Your task to perform on an android device: Open eBay Image 0: 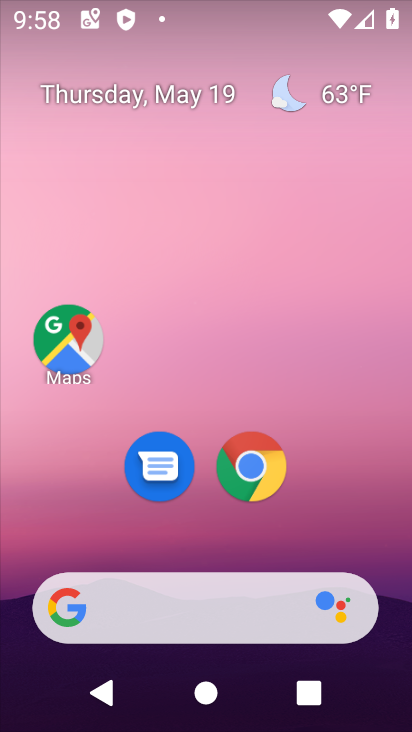
Step 0: drag from (380, 612) to (256, 37)
Your task to perform on an android device: Open eBay Image 1: 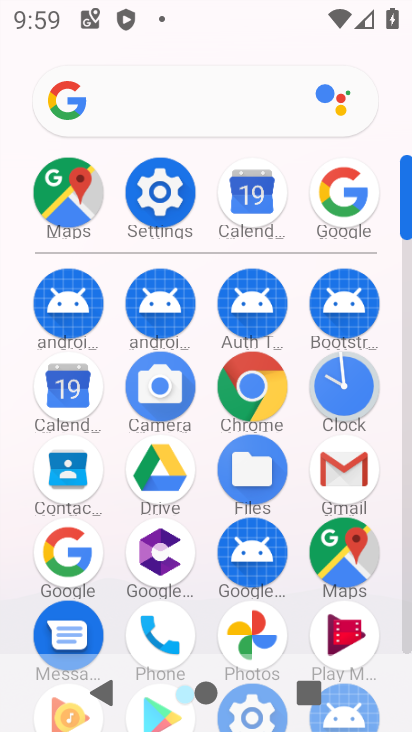
Step 1: click (87, 566)
Your task to perform on an android device: Open eBay Image 2: 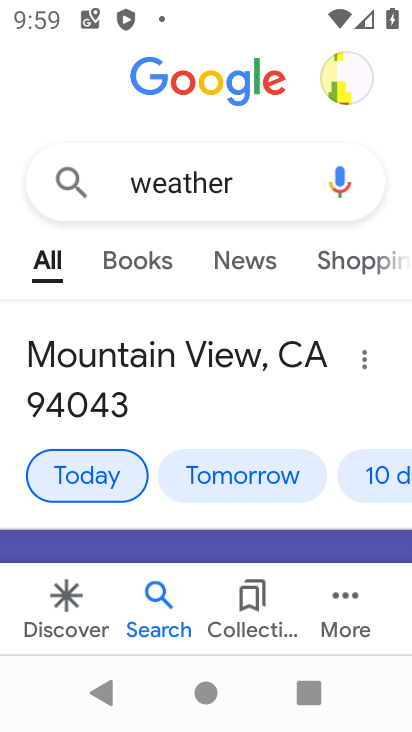
Step 2: press back button
Your task to perform on an android device: Open eBay Image 3: 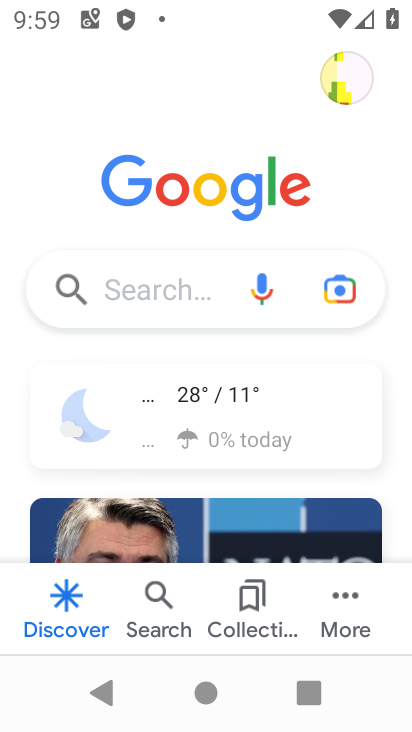
Step 3: click (135, 288)
Your task to perform on an android device: Open eBay Image 4: 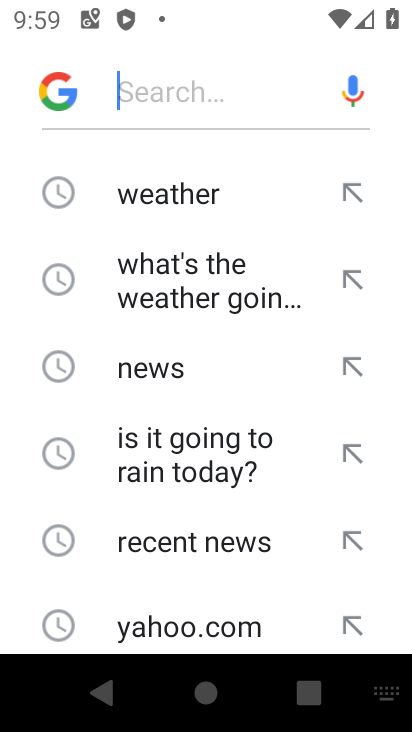
Step 4: drag from (148, 503) to (182, 272)
Your task to perform on an android device: Open eBay Image 5: 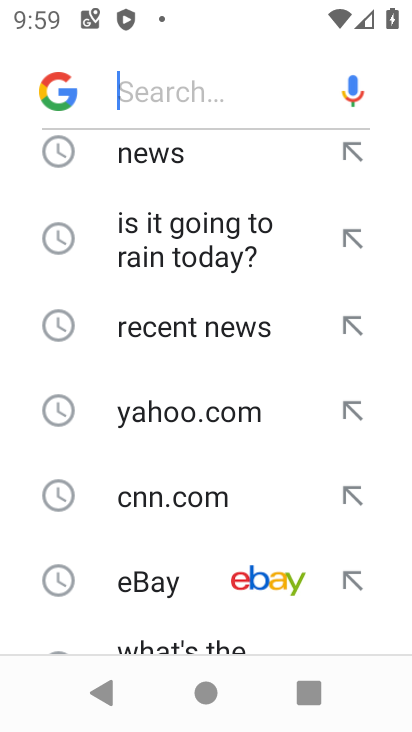
Step 5: click (200, 573)
Your task to perform on an android device: Open eBay Image 6: 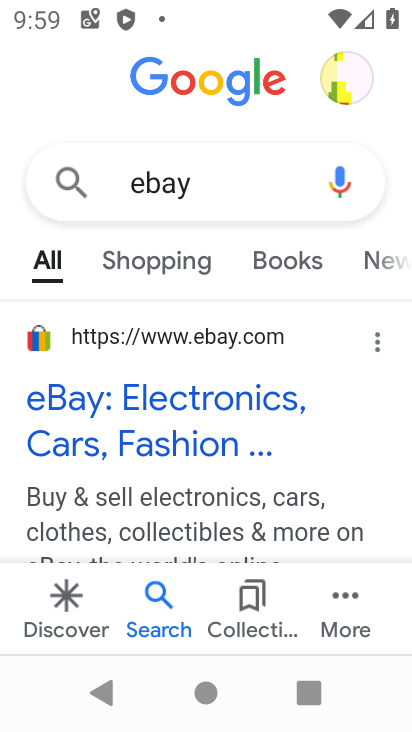
Step 6: task complete